Your task to perform on an android device: Go to Maps Image 0: 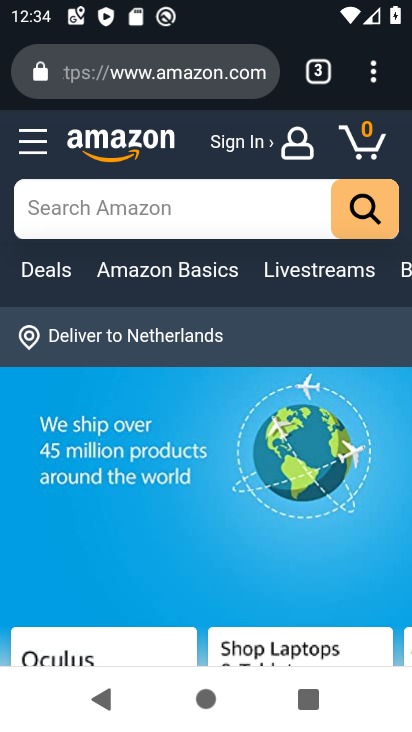
Step 0: press home button
Your task to perform on an android device: Go to Maps Image 1: 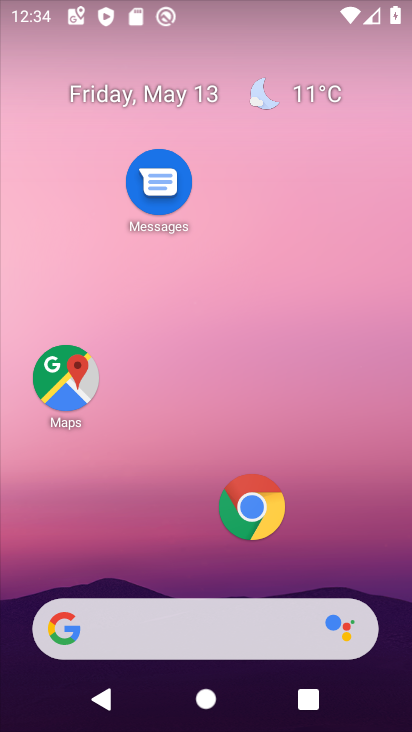
Step 1: click (16, 377)
Your task to perform on an android device: Go to Maps Image 2: 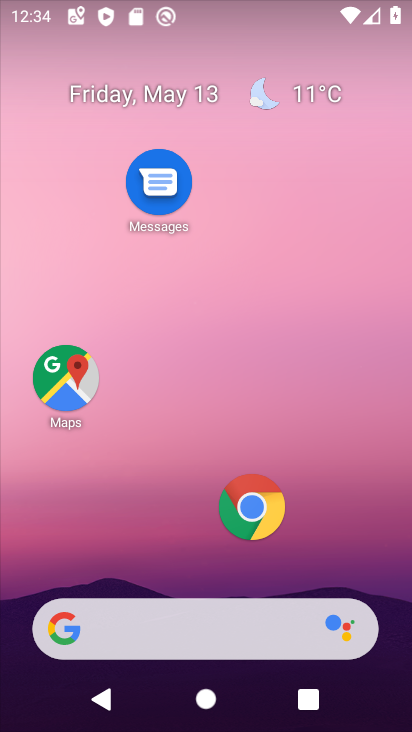
Step 2: click (39, 379)
Your task to perform on an android device: Go to Maps Image 3: 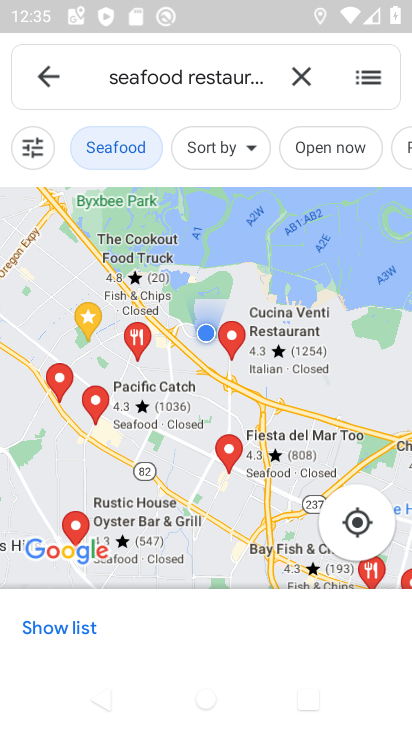
Step 3: task complete